Your task to perform on an android device: delete location history Image 0: 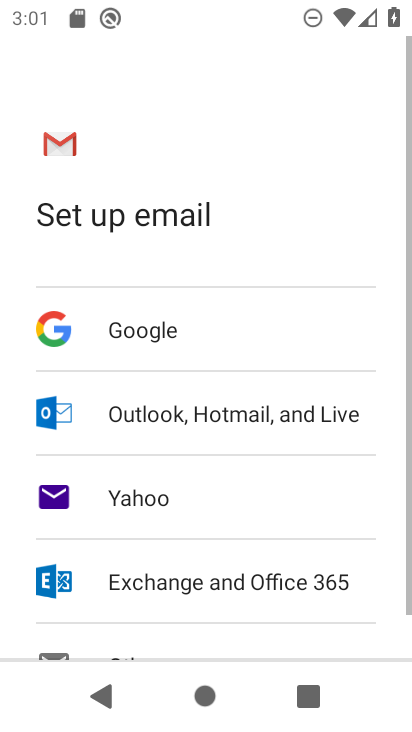
Step 0: press back button
Your task to perform on an android device: delete location history Image 1: 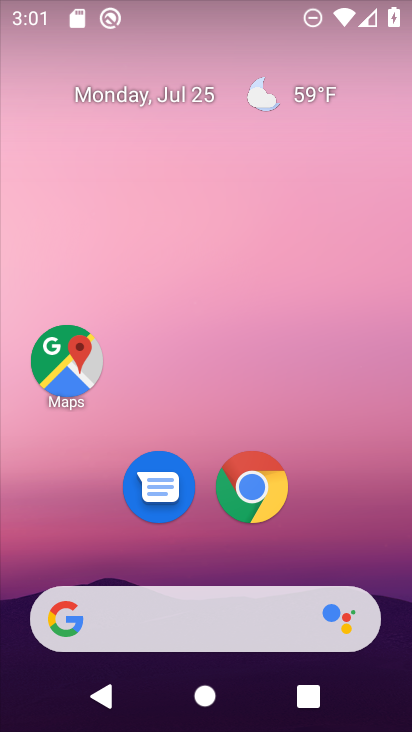
Step 1: click (73, 363)
Your task to perform on an android device: delete location history Image 2: 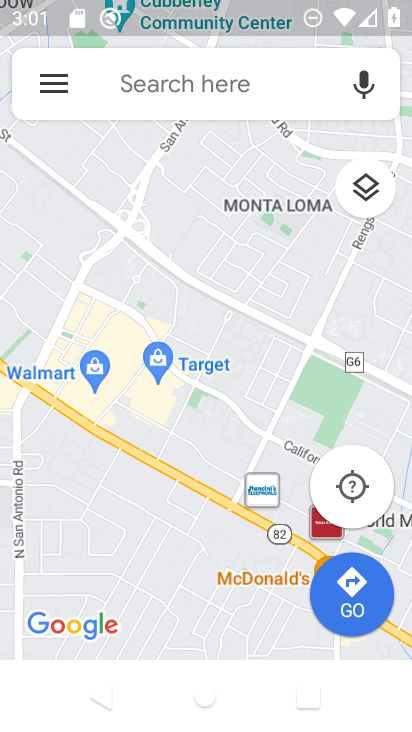
Step 2: click (42, 86)
Your task to perform on an android device: delete location history Image 3: 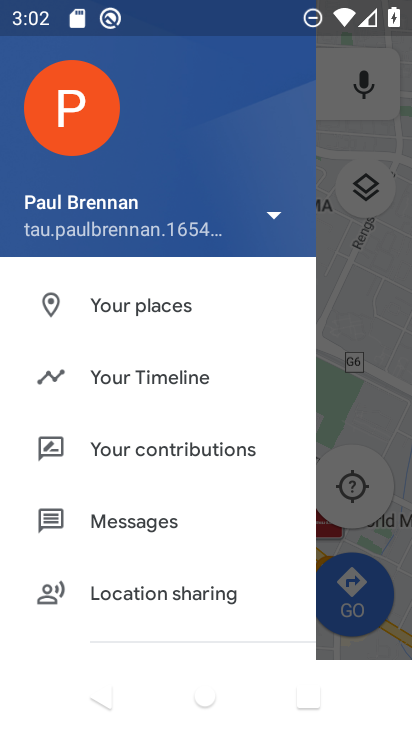
Step 3: click (141, 390)
Your task to perform on an android device: delete location history Image 4: 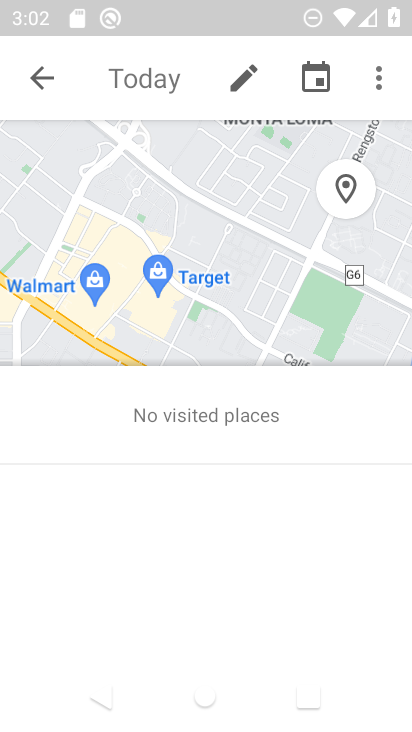
Step 4: click (365, 65)
Your task to perform on an android device: delete location history Image 5: 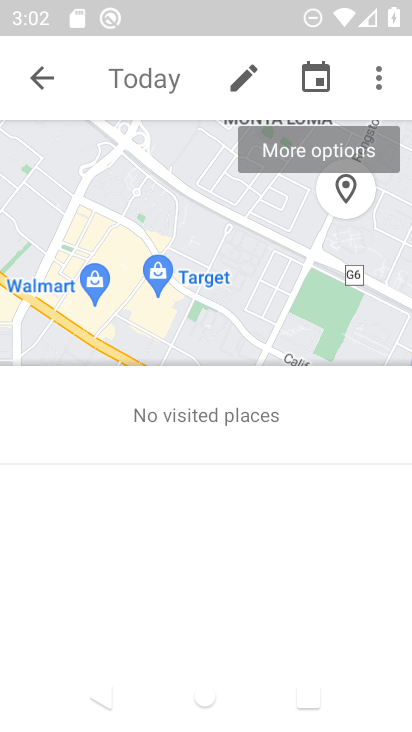
Step 5: click (375, 79)
Your task to perform on an android device: delete location history Image 6: 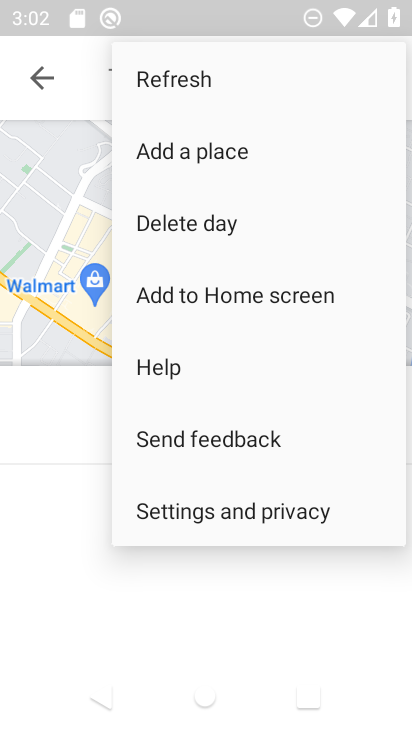
Step 6: click (175, 509)
Your task to perform on an android device: delete location history Image 7: 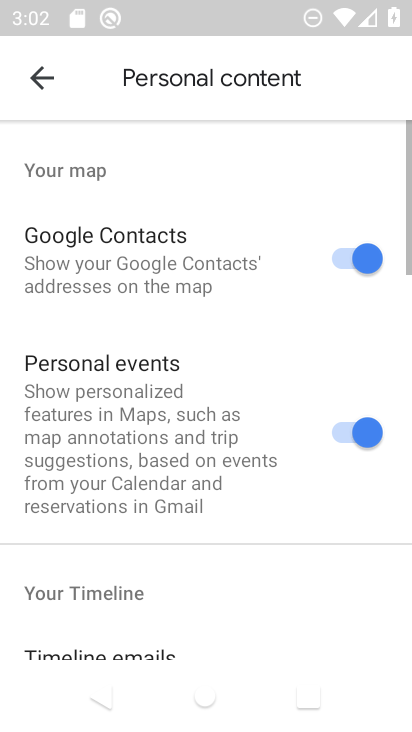
Step 7: drag from (169, 615) to (285, 111)
Your task to perform on an android device: delete location history Image 8: 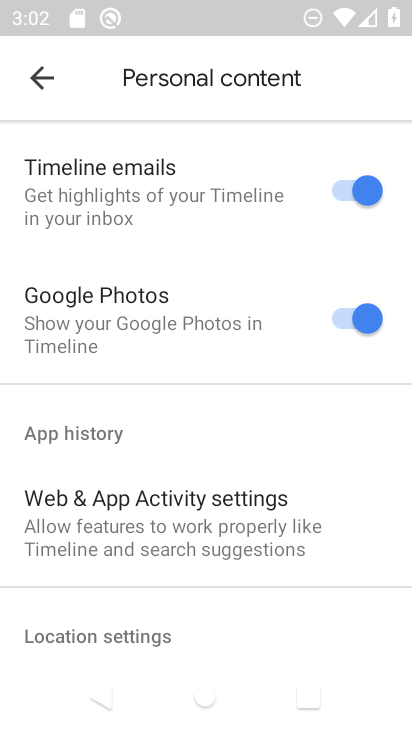
Step 8: drag from (183, 591) to (291, 54)
Your task to perform on an android device: delete location history Image 9: 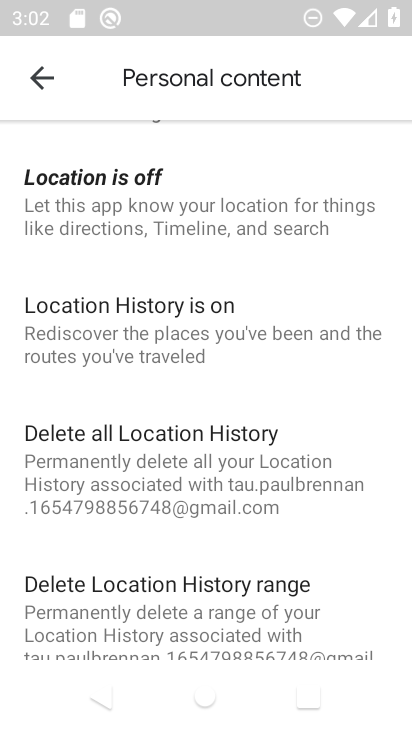
Step 9: click (164, 452)
Your task to perform on an android device: delete location history Image 10: 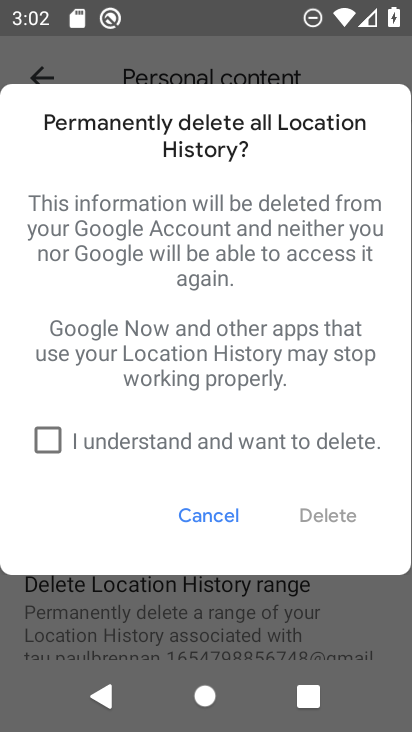
Step 10: click (66, 435)
Your task to perform on an android device: delete location history Image 11: 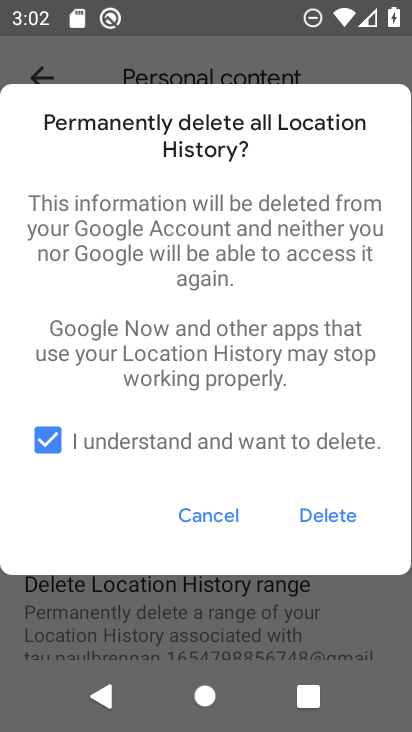
Step 11: click (316, 501)
Your task to perform on an android device: delete location history Image 12: 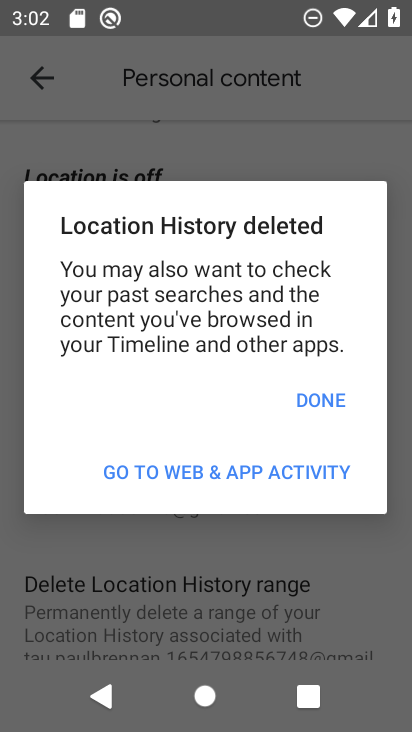
Step 12: click (323, 394)
Your task to perform on an android device: delete location history Image 13: 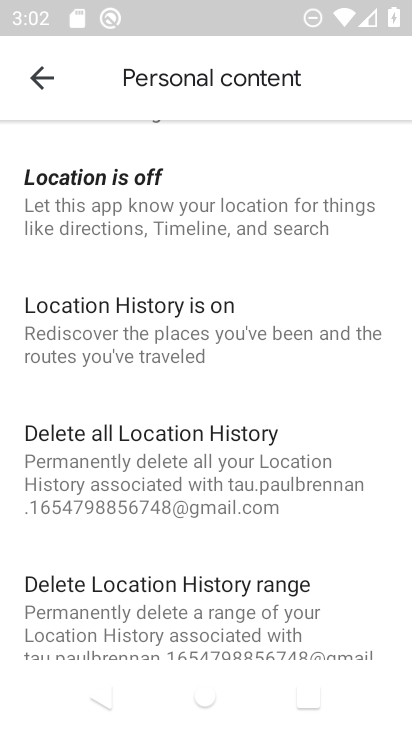
Step 13: task complete